Your task to perform on an android device: turn on bluetooth scan Image 0: 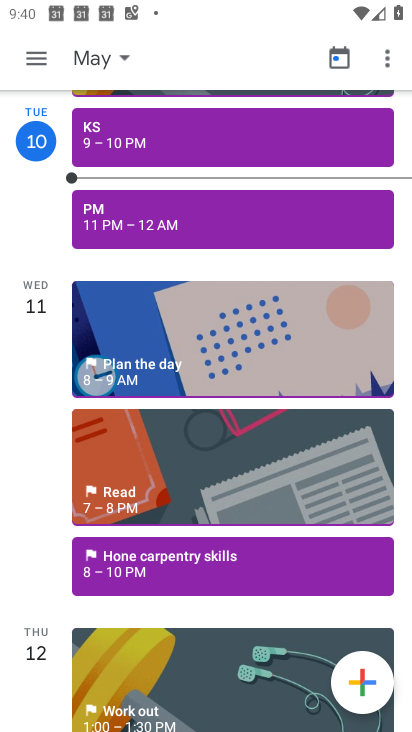
Step 0: press home button
Your task to perform on an android device: turn on bluetooth scan Image 1: 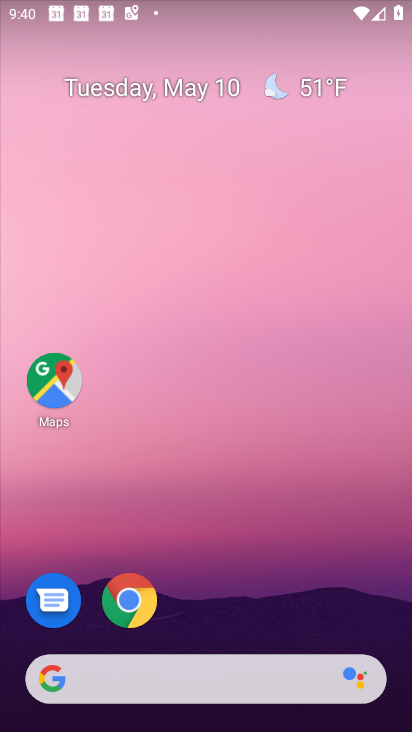
Step 1: drag from (238, 615) to (232, 42)
Your task to perform on an android device: turn on bluetooth scan Image 2: 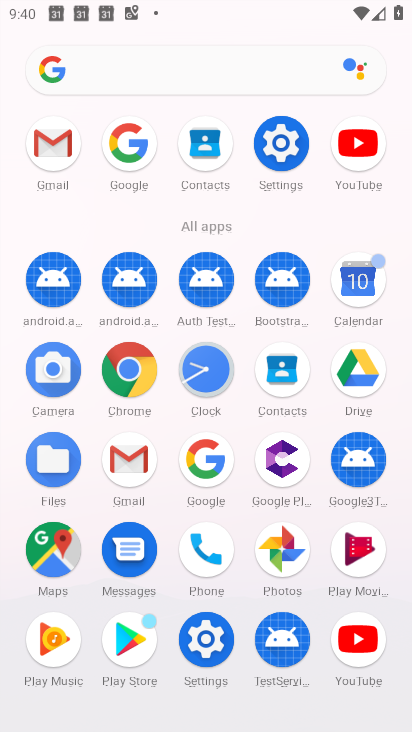
Step 2: click (268, 145)
Your task to perform on an android device: turn on bluetooth scan Image 3: 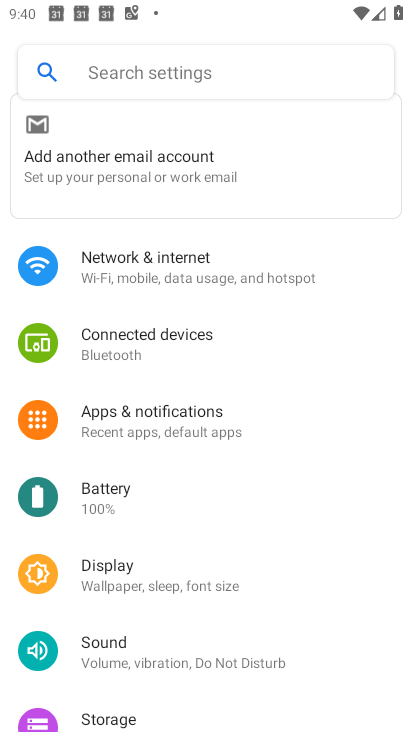
Step 3: drag from (202, 533) to (208, 175)
Your task to perform on an android device: turn on bluetooth scan Image 4: 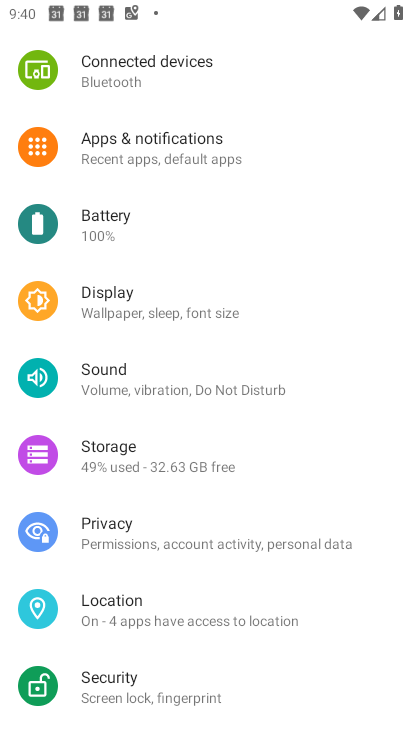
Step 4: drag from (204, 595) to (209, 212)
Your task to perform on an android device: turn on bluetooth scan Image 5: 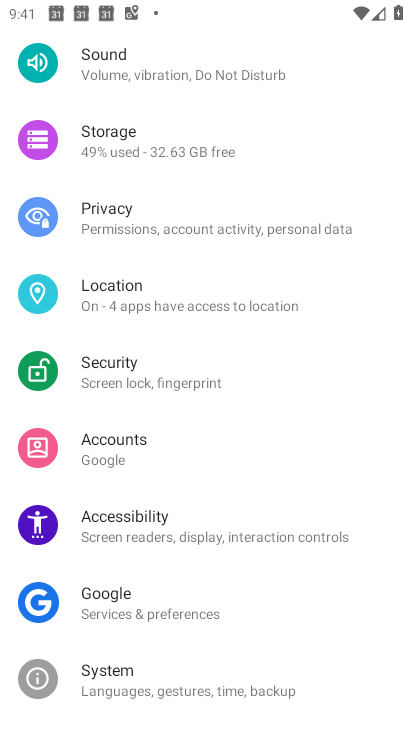
Step 5: drag from (187, 294) to (203, 570)
Your task to perform on an android device: turn on bluetooth scan Image 6: 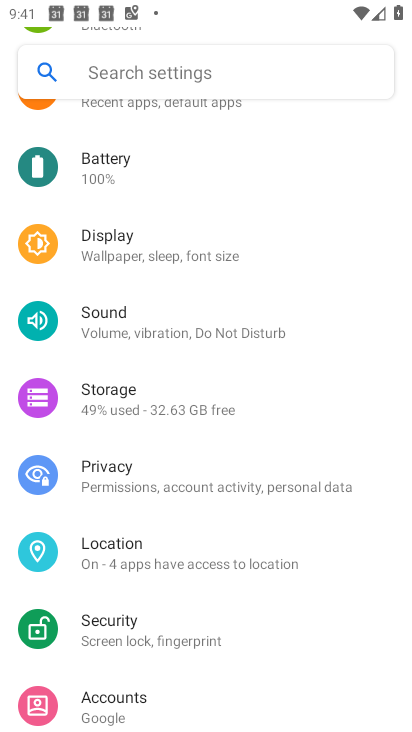
Step 6: click (172, 555)
Your task to perform on an android device: turn on bluetooth scan Image 7: 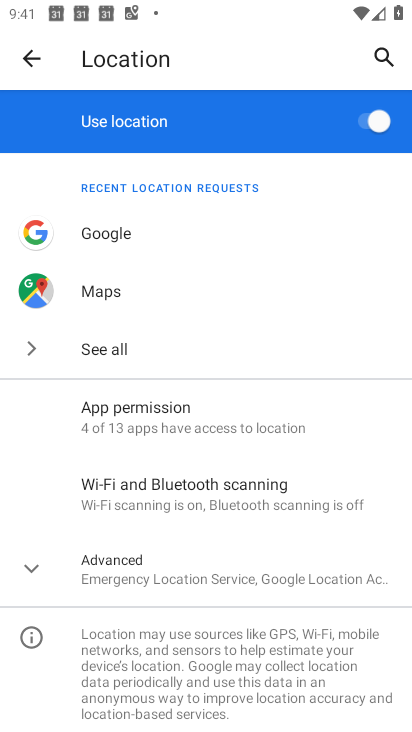
Step 7: click (213, 481)
Your task to perform on an android device: turn on bluetooth scan Image 8: 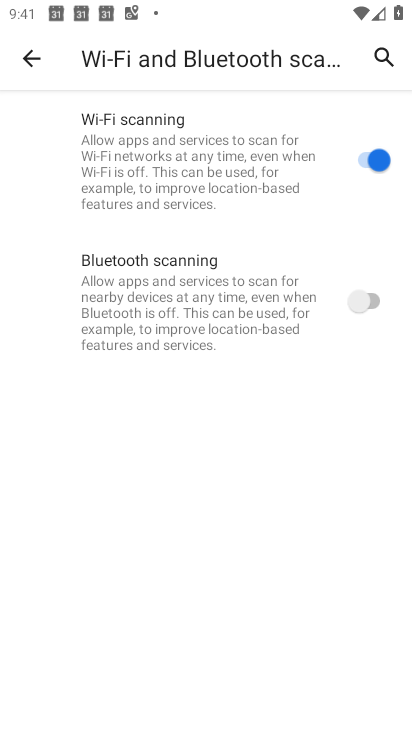
Step 8: click (350, 297)
Your task to perform on an android device: turn on bluetooth scan Image 9: 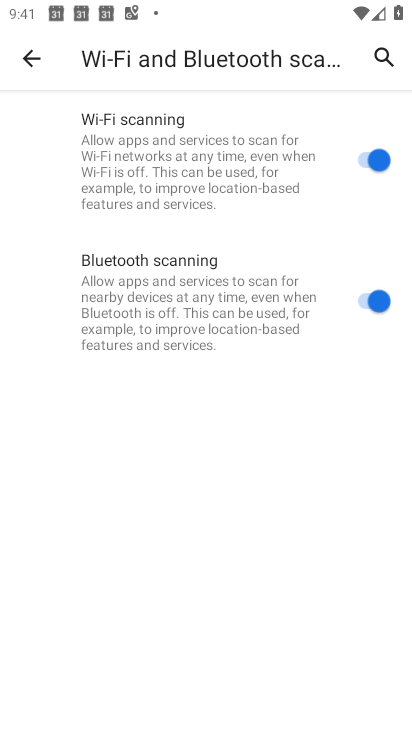
Step 9: task complete